Your task to perform on an android device: Turn off the flashlight Image 0: 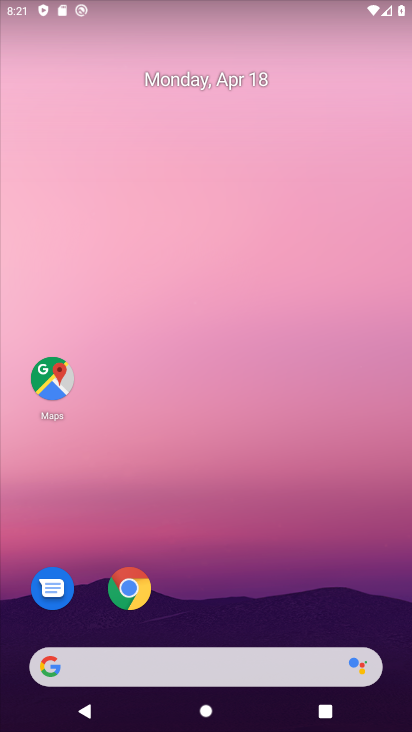
Step 0: drag from (28, 520) to (253, 51)
Your task to perform on an android device: Turn off the flashlight Image 1: 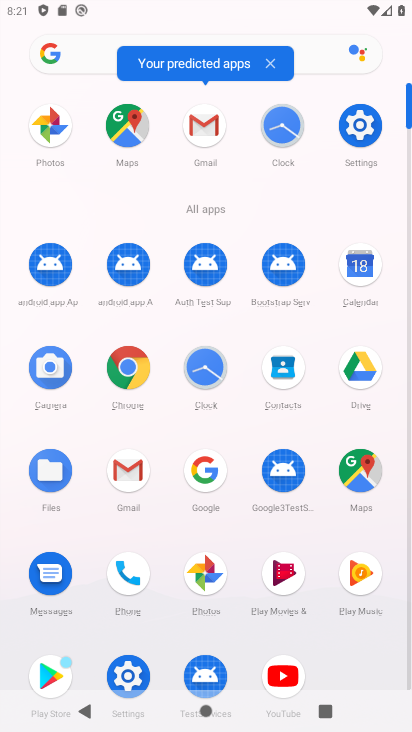
Step 1: click (127, 672)
Your task to perform on an android device: Turn off the flashlight Image 2: 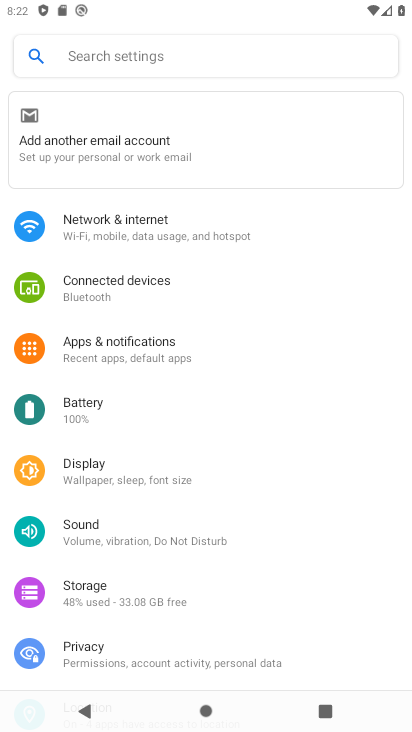
Step 2: task complete